Your task to perform on an android device: Search for bose soundlink mini on target.com, select the first entry, add it to the cart, then select checkout. Image 0: 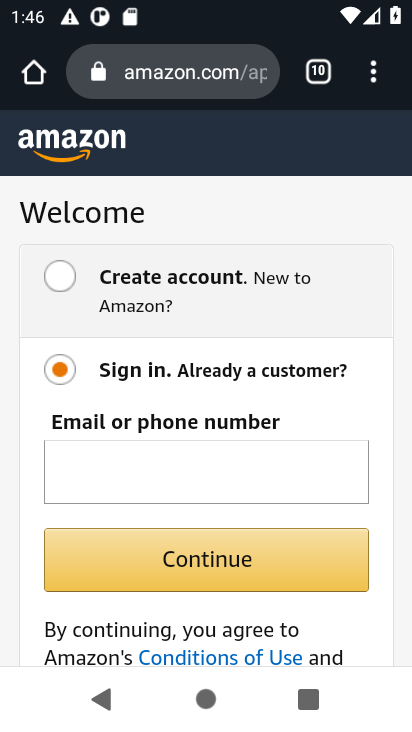
Step 0: click (164, 62)
Your task to perform on an android device: Search for bose soundlink mini on target.com, select the first entry, add it to the cart, then select checkout. Image 1: 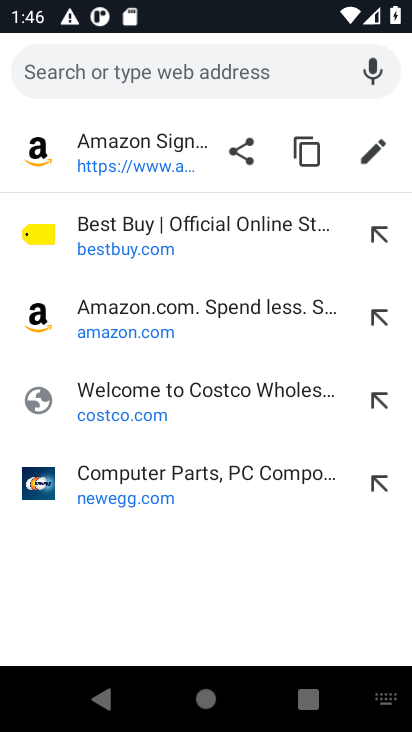
Step 1: type "target.com"
Your task to perform on an android device: Search for bose soundlink mini on target.com, select the first entry, add it to the cart, then select checkout. Image 2: 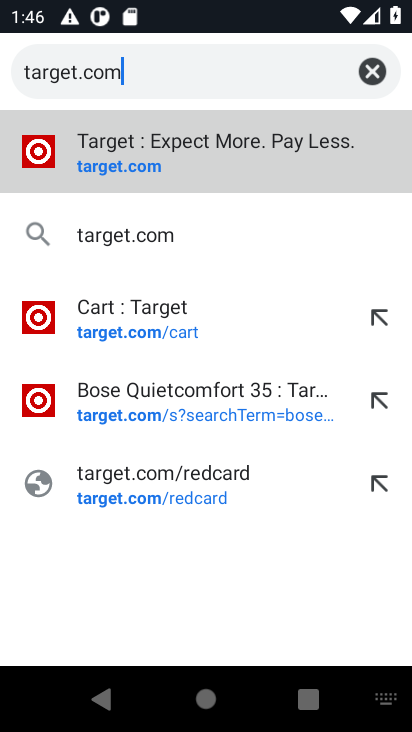
Step 2: click (90, 170)
Your task to perform on an android device: Search for bose soundlink mini on target.com, select the first entry, add it to the cart, then select checkout. Image 3: 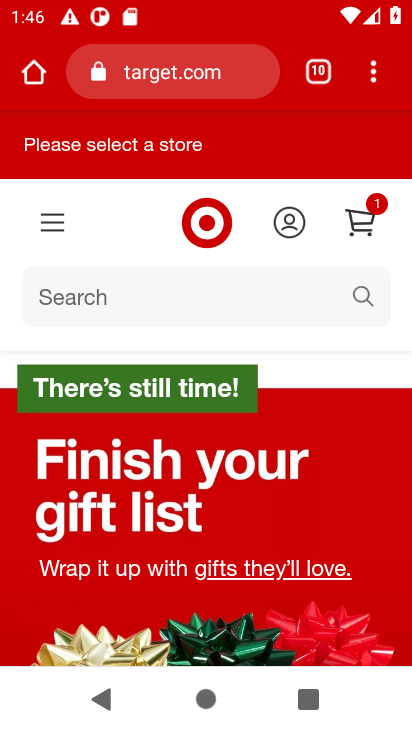
Step 3: click (35, 291)
Your task to perform on an android device: Search for bose soundlink mini on target.com, select the first entry, add it to the cart, then select checkout. Image 4: 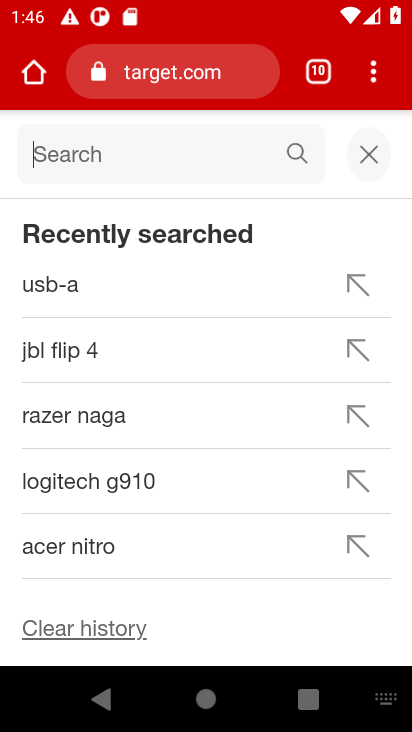
Step 4: type " bose soundlink mini"
Your task to perform on an android device: Search for bose soundlink mini on target.com, select the first entry, add it to the cart, then select checkout. Image 5: 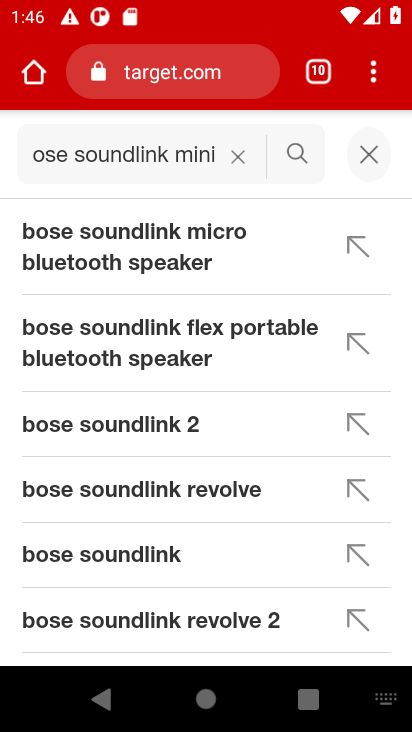
Step 5: click (297, 158)
Your task to perform on an android device: Search for bose soundlink mini on target.com, select the first entry, add it to the cart, then select checkout. Image 6: 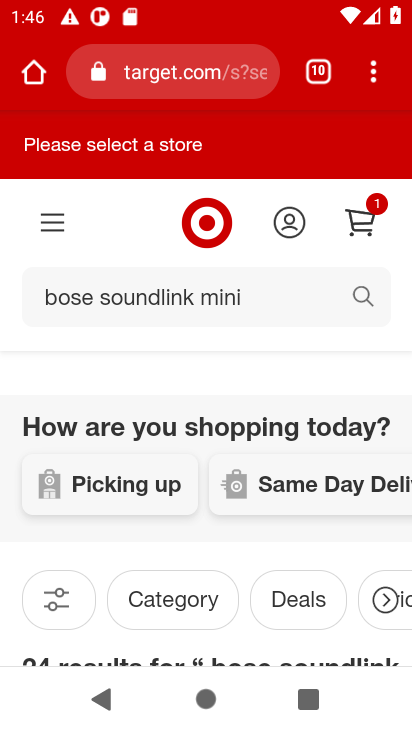
Step 6: task complete